Your task to perform on an android device: Search for flights from Zurich to Helsinki Image 0: 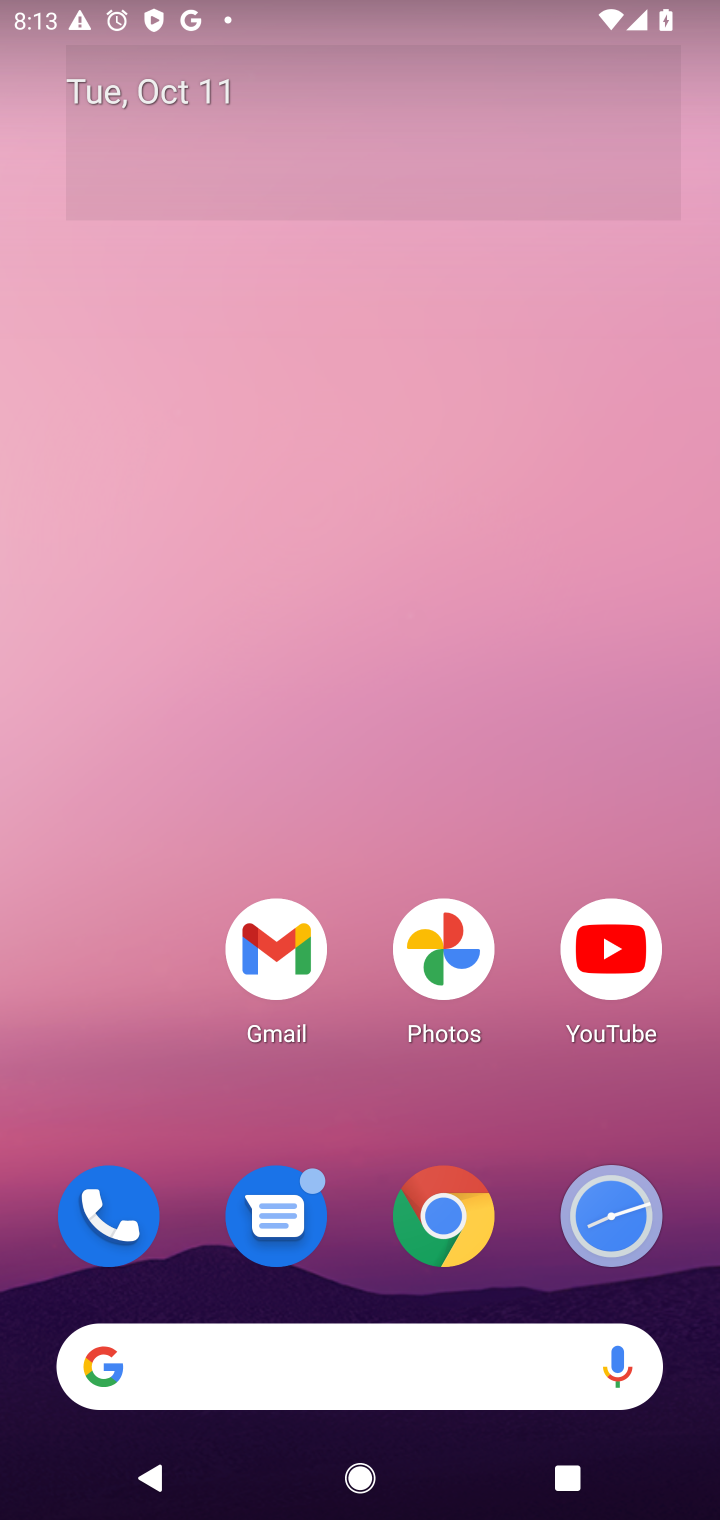
Step 0: click (468, 1206)
Your task to perform on an android device: Search for flights from Zurich to Helsinki Image 1: 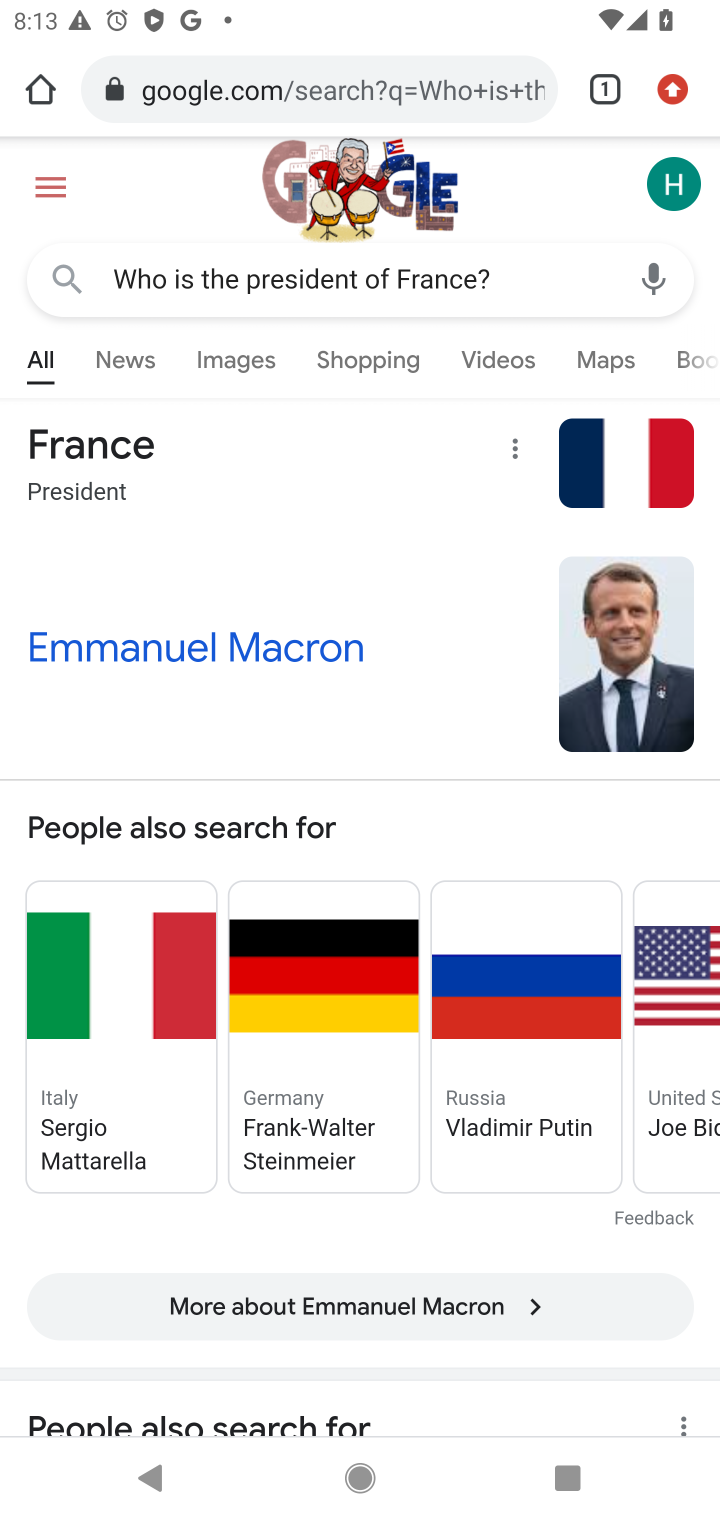
Step 1: click (532, 270)
Your task to perform on an android device: Search for flights from Zurich to Helsinki Image 2: 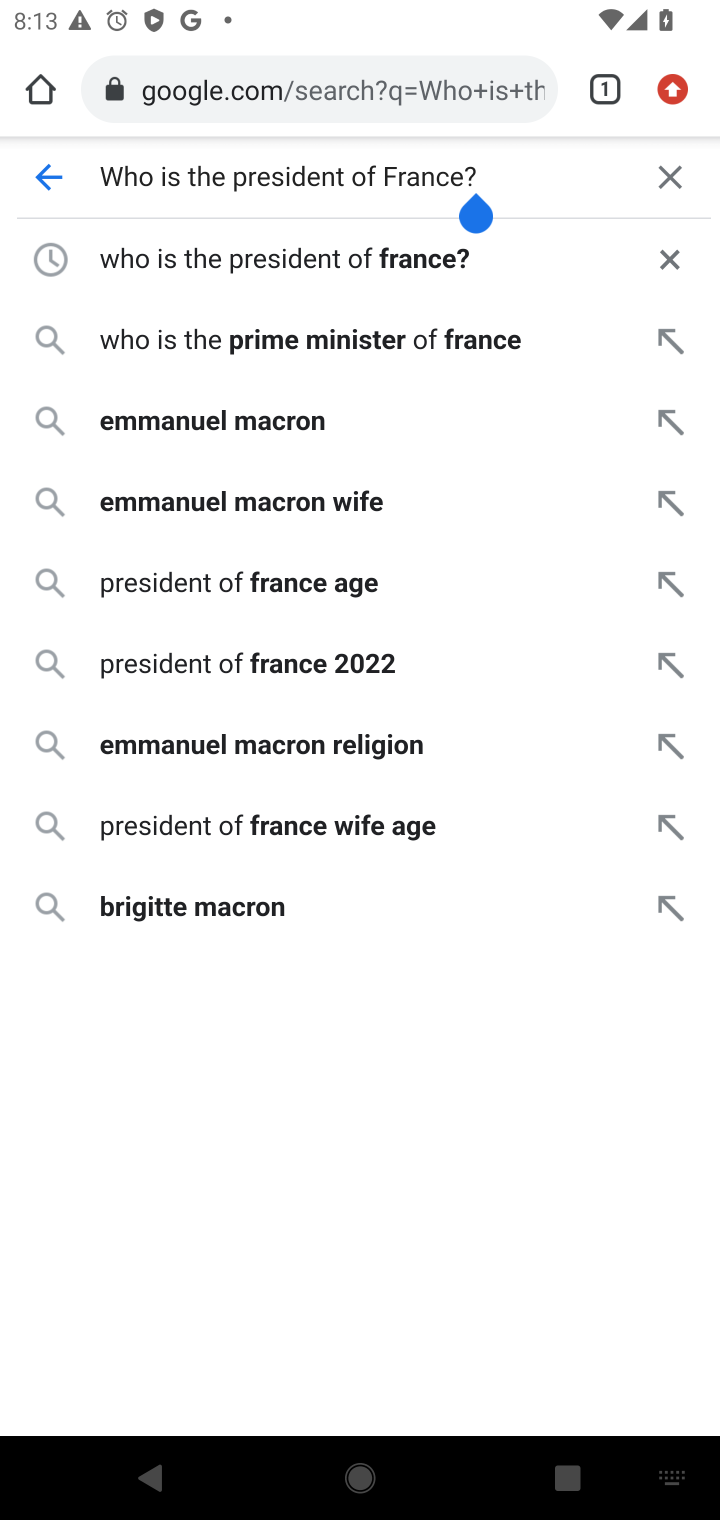
Step 2: click (668, 179)
Your task to perform on an android device: Search for flights from Zurich to Helsinki Image 3: 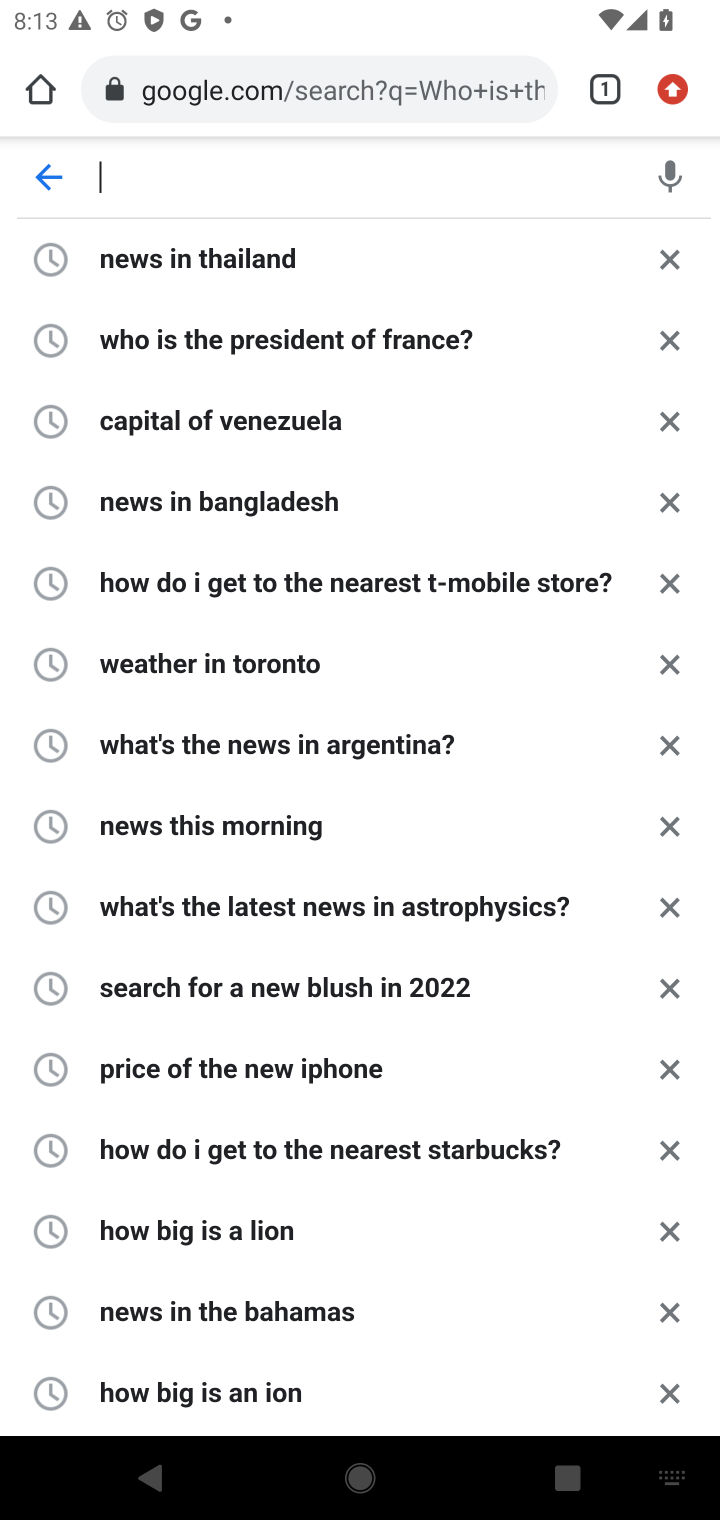
Step 3: type "Search for flights from Zurich to Helsinki"
Your task to perform on an android device: Search for flights from Zurich to Helsinki Image 4: 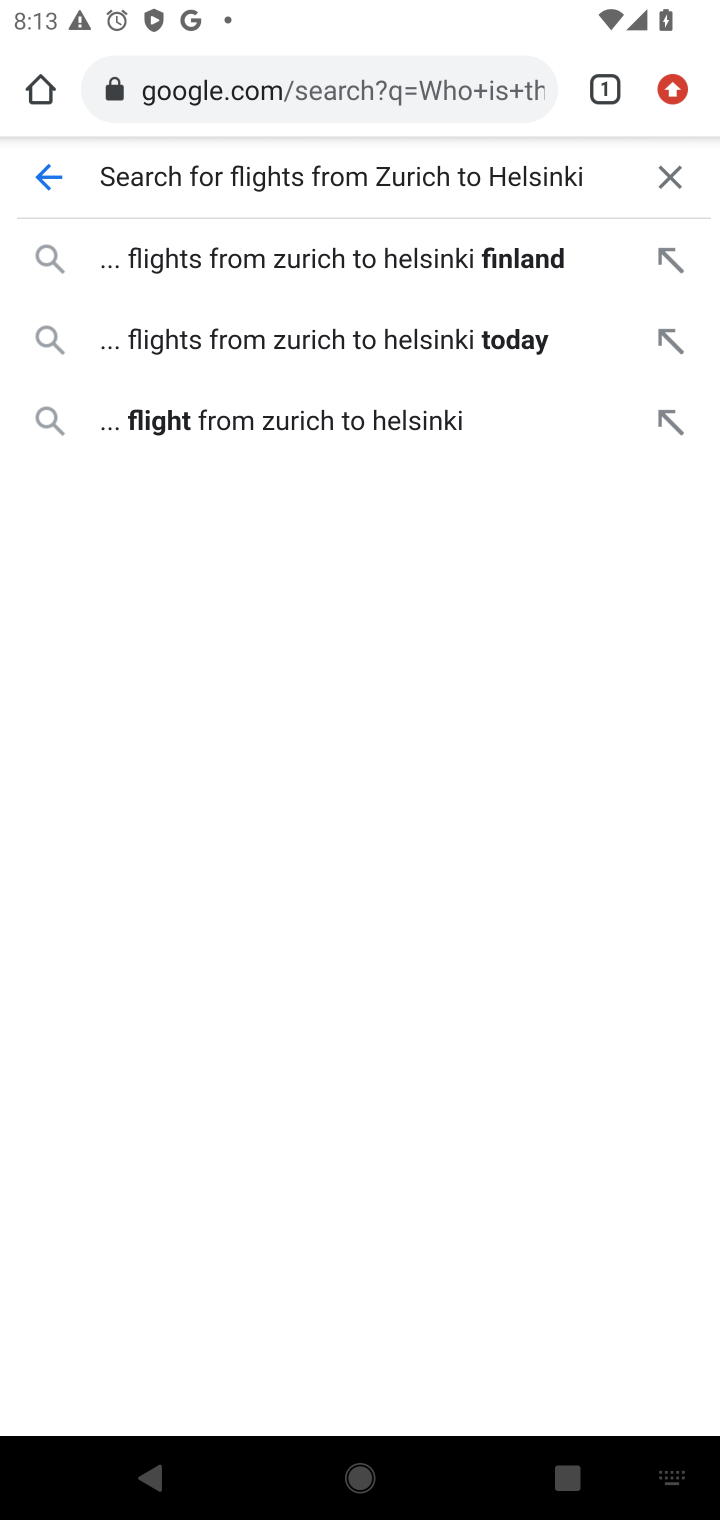
Step 4: press enter
Your task to perform on an android device: Search for flights from Zurich to Helsinki Image 5: 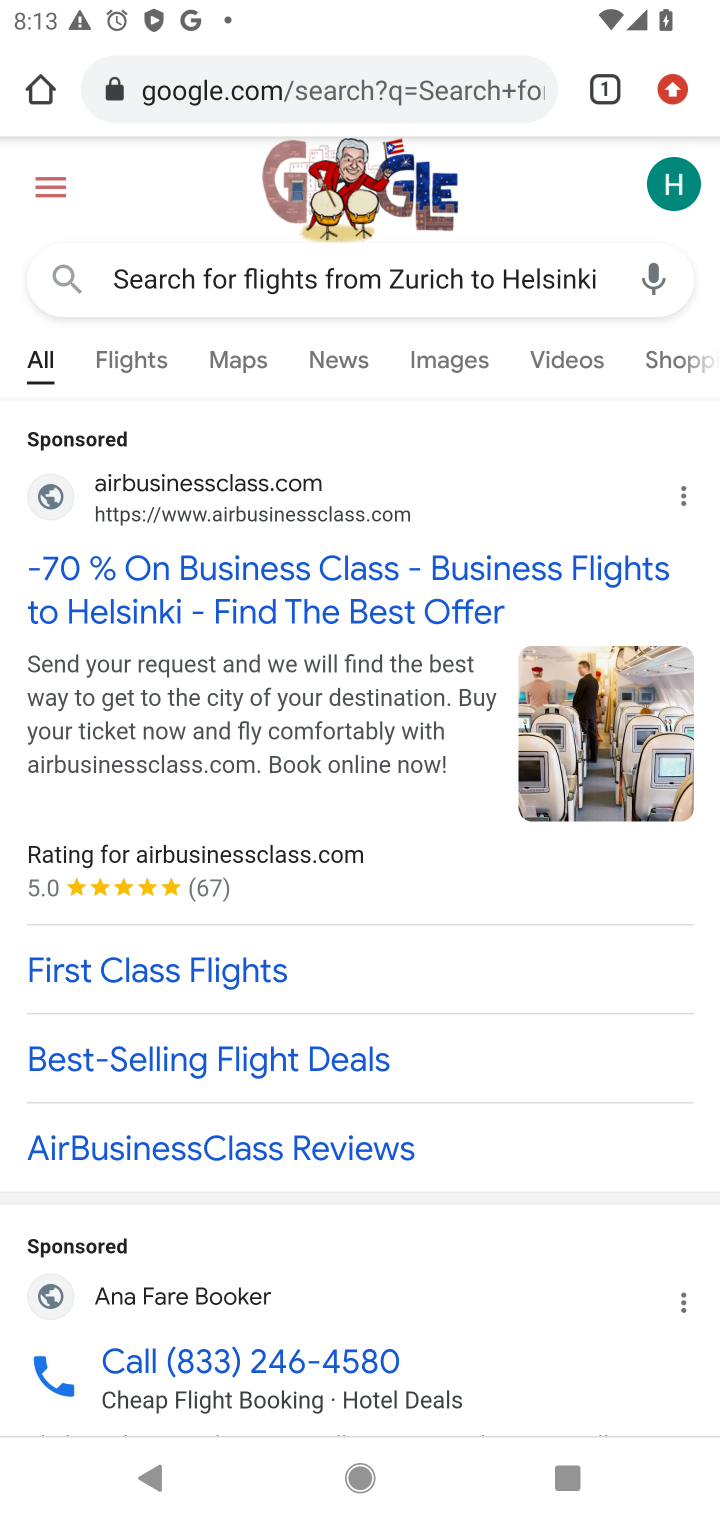
Step 5: task complete